Your task to perform on an android device: Show me popular videos on Youtube Image 0: 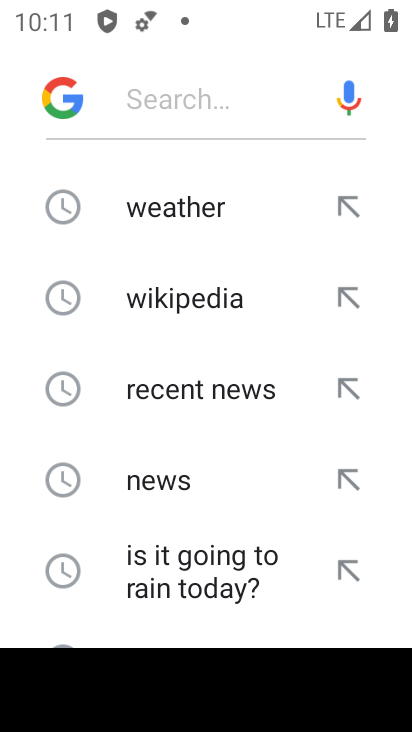
Step 0: press home button
Your task to perform on an android device: Show me popular videos on Youtube Image 1: 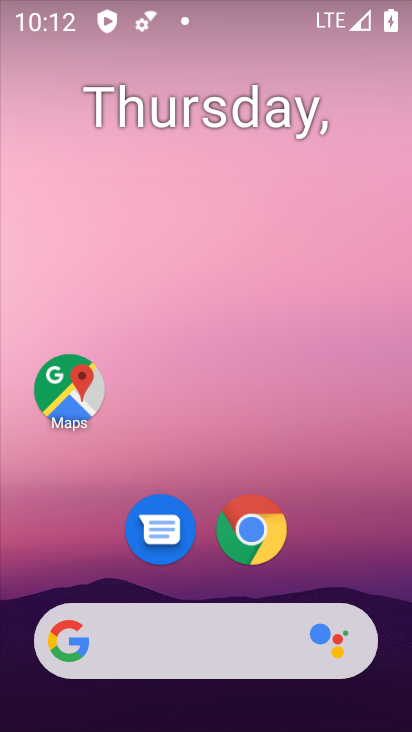
Step 1: drag from (303, 578) to (307, 139)
Your task to perform on an android device: Show me popular videos on Youtube Image 2: 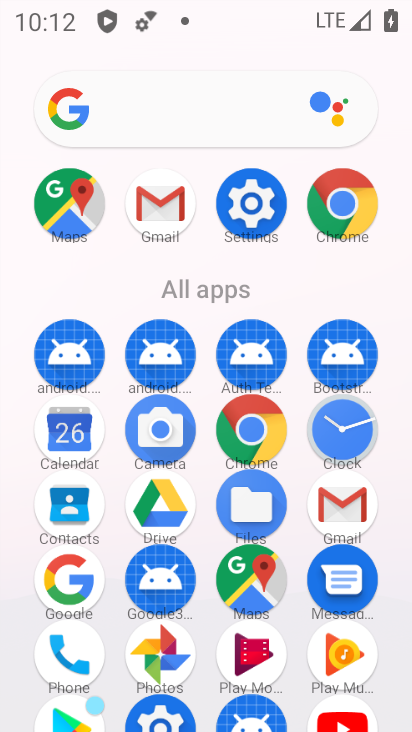
Step 2: drag from (291, 661) to (345, 256)
Your task to perform on an android device: Show me popular videos on Youtube Image 3: 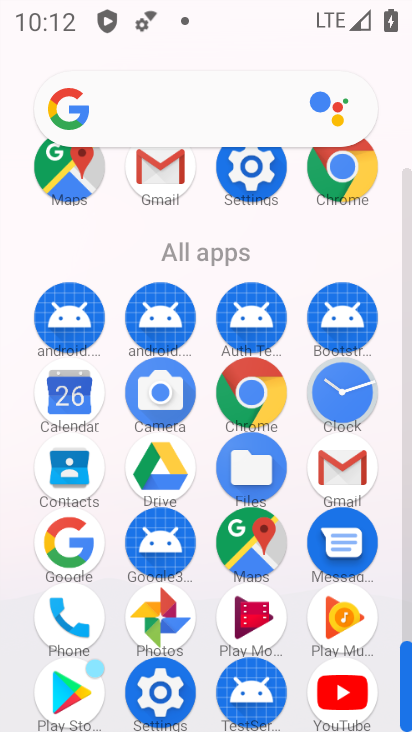
Step 3: click (337, 705)
Your task to perform on an android device: Show me popular videos on Youtube Image 4: 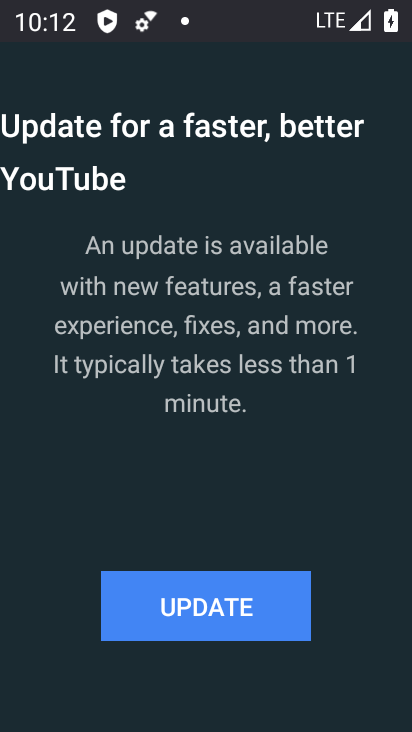
Step 4: click (266, 615)
Your task to perform on an android device: Show me popular videos on Youtube Image 5: 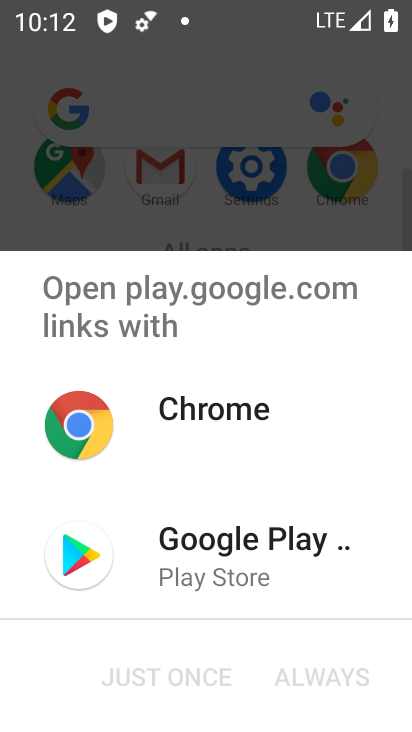
Step 5: click (236, 568)
Your task to perform on an android device: Show me popular videos on Youtube Image 6: 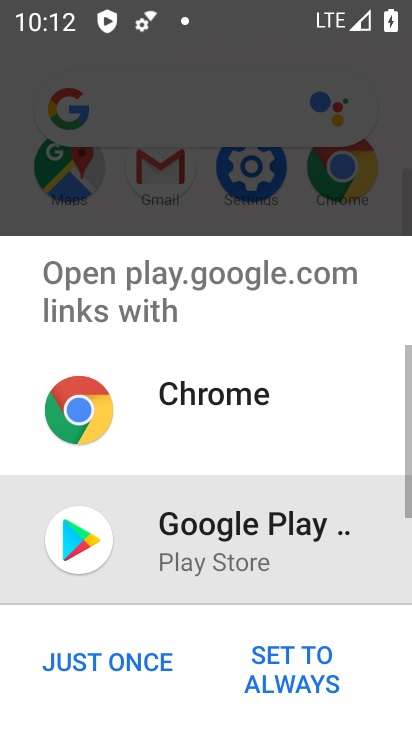
Step 6: click (324, 673)
Your task to perform on an android device: Show me popular videos on Youtube Image 7: 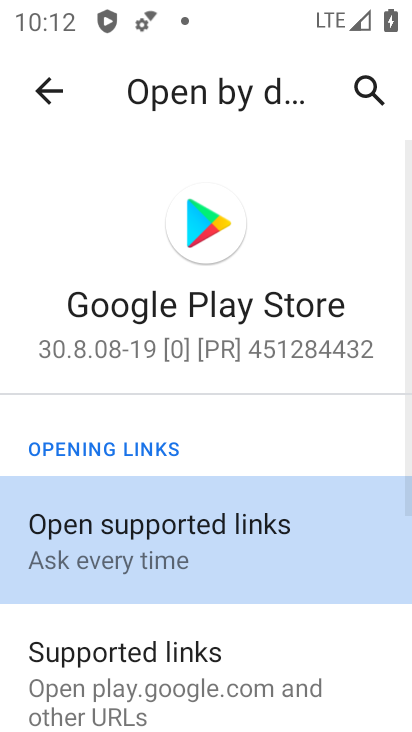
Step 7: click (146, 347)
Your task to perform on an android device: Show me popular videos on Youtube Image 8: 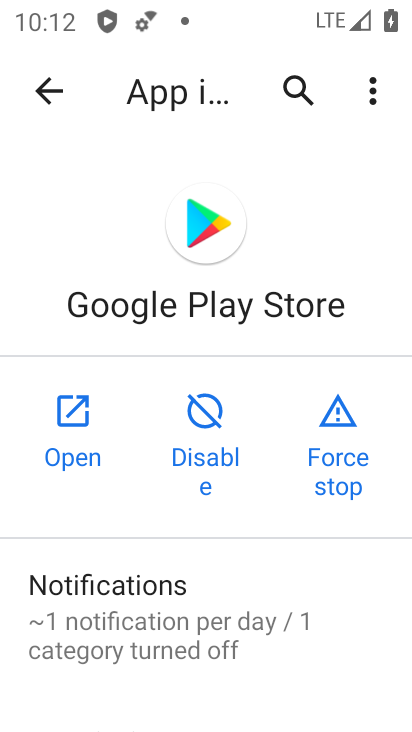
Step 8: click (37, 80)
Your task to perform on an android device: Show me popular videos on Youtube Image 9: 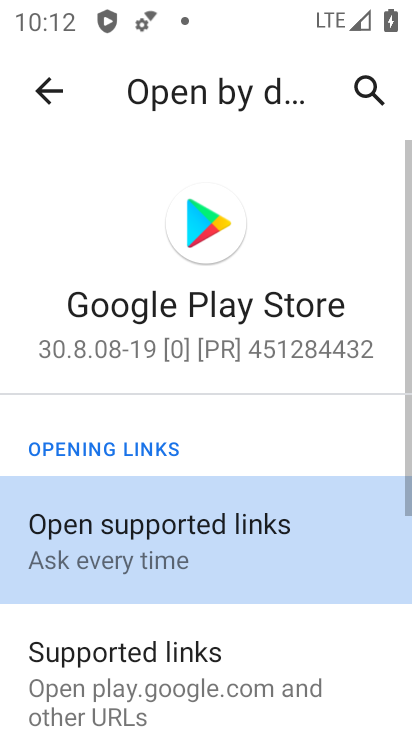
Step 9: click (145, 553)
Your task to perform on an android device: Show me popular videos on Youtube Image 10: 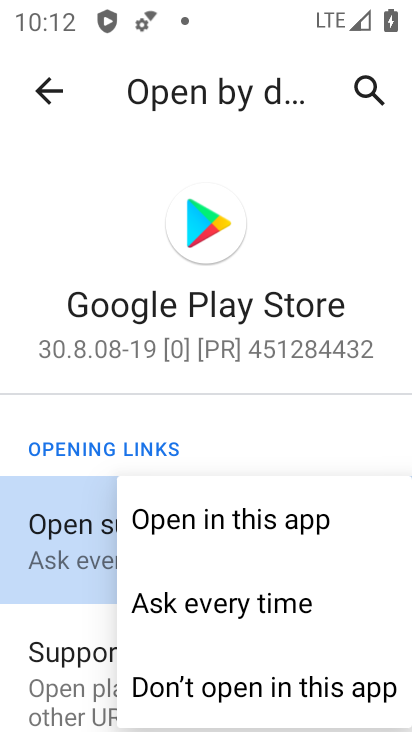
Step 10: click (180, 523)
Your task to perform on an android device: Show me popular videos on Youtube Image 11: 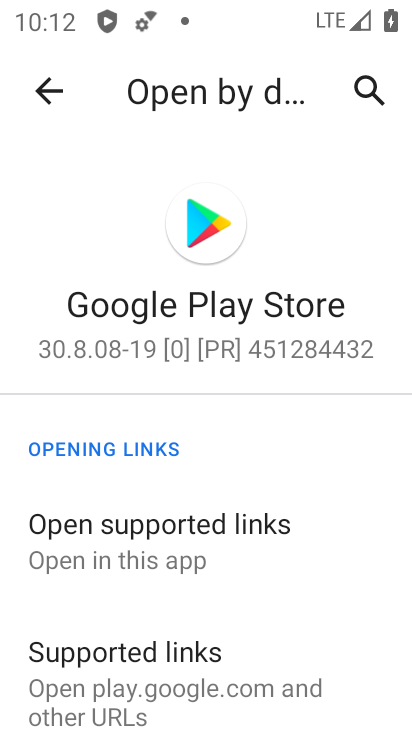
Step 11: click (34, 88)
Your task to perform on an android device: Show me popular videos on Youtube Image 12: 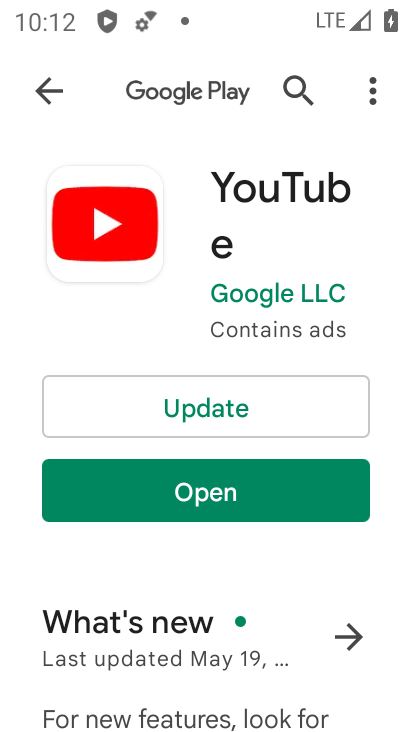
Step 12: click (223, 411)
Your task to perform on an android device: Show me popular videos on Youtube Image 13: 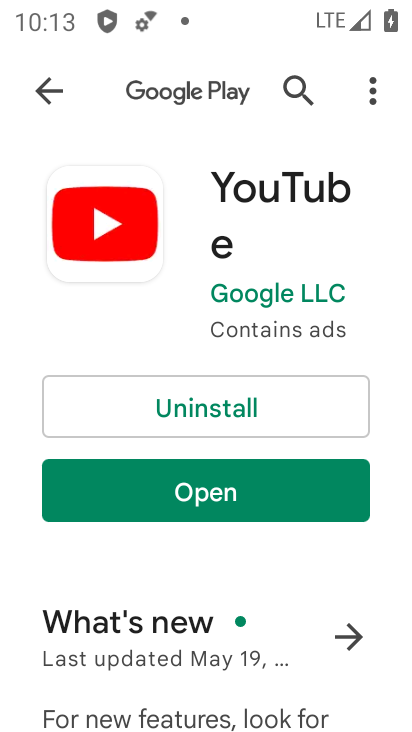
Step 13: click (204, 492)
Your task to perform on an android device: Show me popular videos on Youtube Image 14: 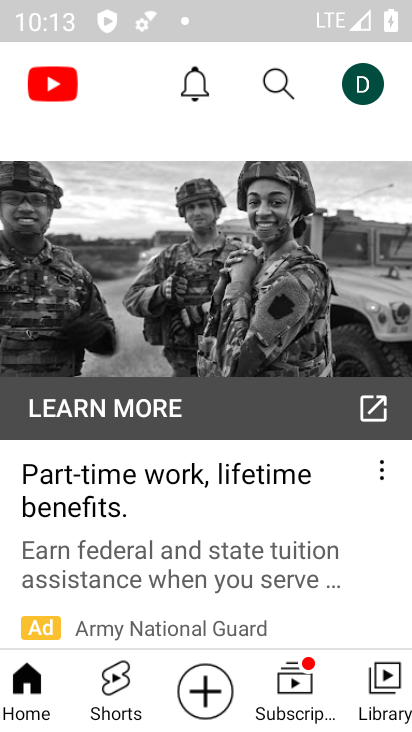
Step 14: task complete